Your task to perform on an android device: Open notification settings Image 0: 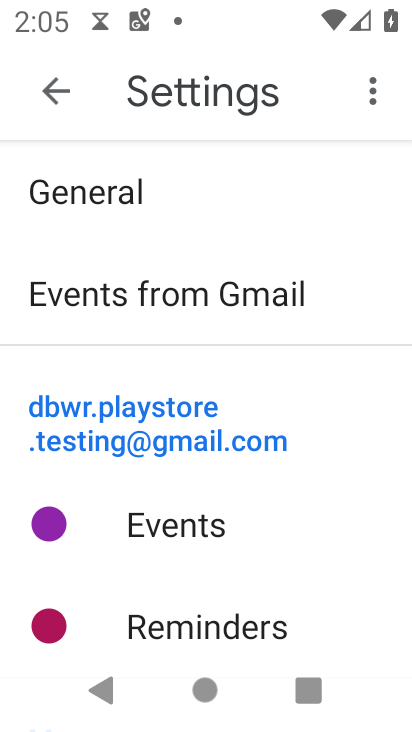
Step 0: press home button
Your task to perform on an android device: Open notification settings Image 1: 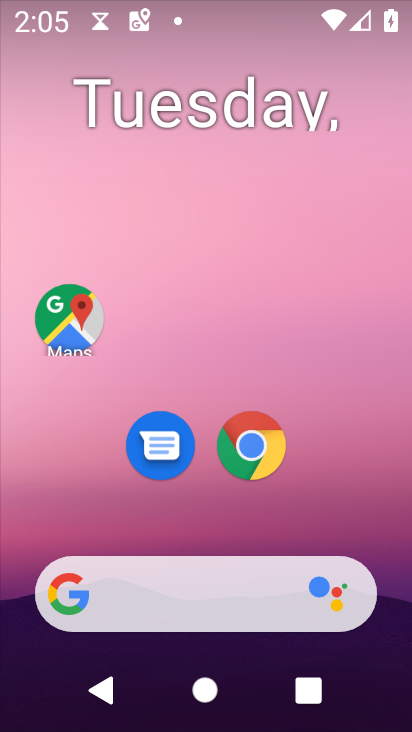
Step 1: drag from (242, 566) to (300, 138)
Your task to perform on an android device: Open notification settings Image 2: 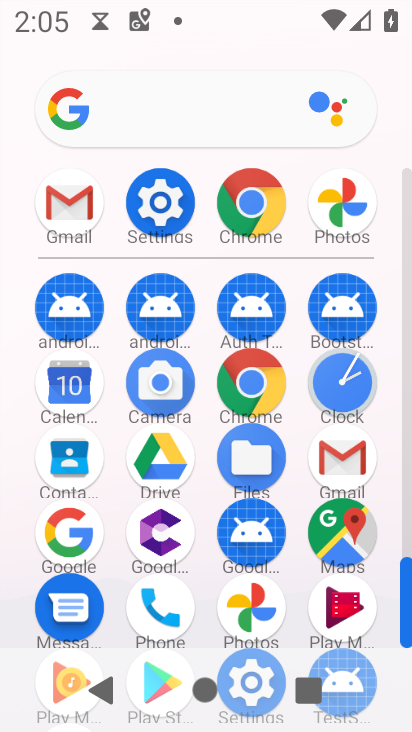
Step 2: click (163, 209)
Your task to perform on an android device: Open notification settings Image 3: 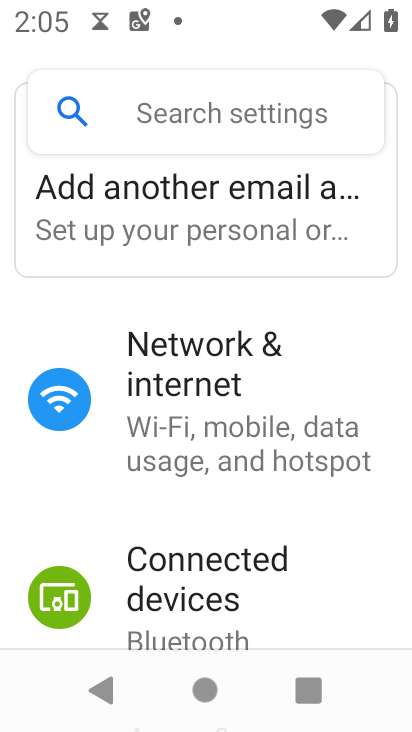
Step 3: drag from (263, 574) to (298, 320)
Your task to perform on an android device: Open notification settings Image 4: 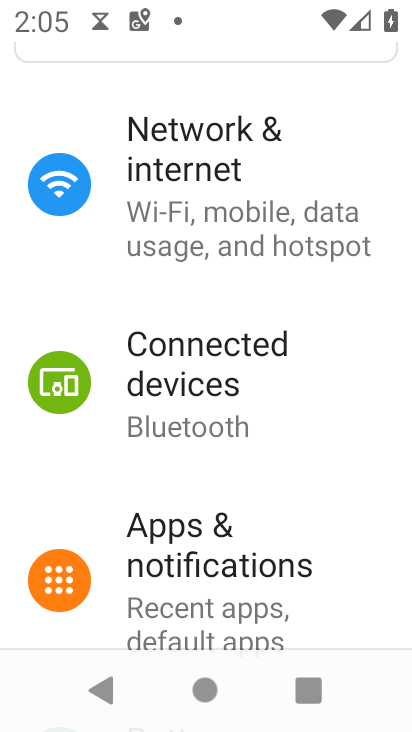
Step 4: click (232, 550)
Your task to perform on an android device: Open notification settings Image 5: 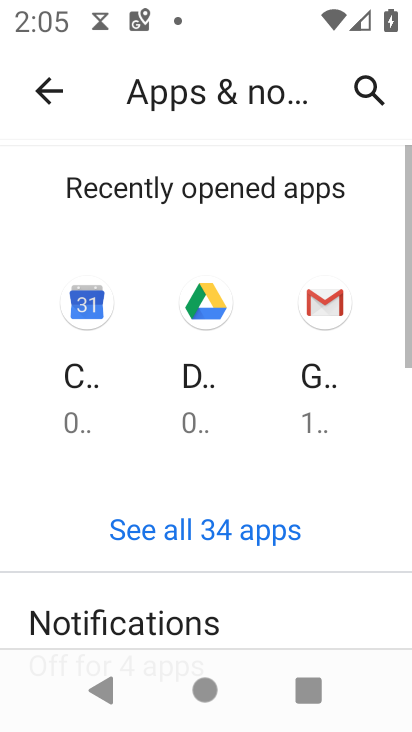
Step 5: drag from (318, 615) to (368, 180)
Your task to perform on an android device: Open notification settings Image 6: 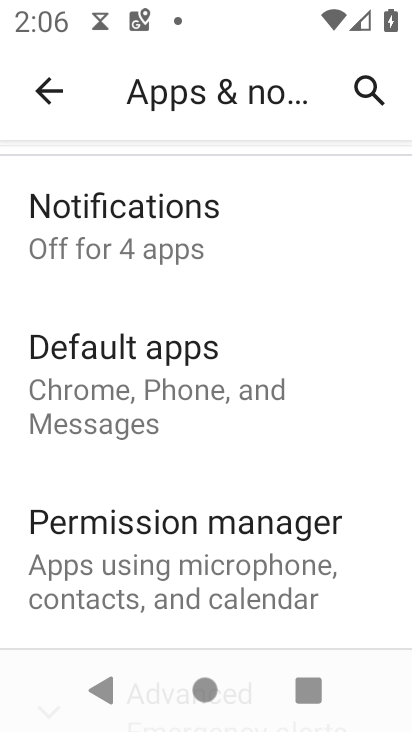
Step 6: click (135, 266)
Your task to perform on an android device: Open notification settings Image 7: 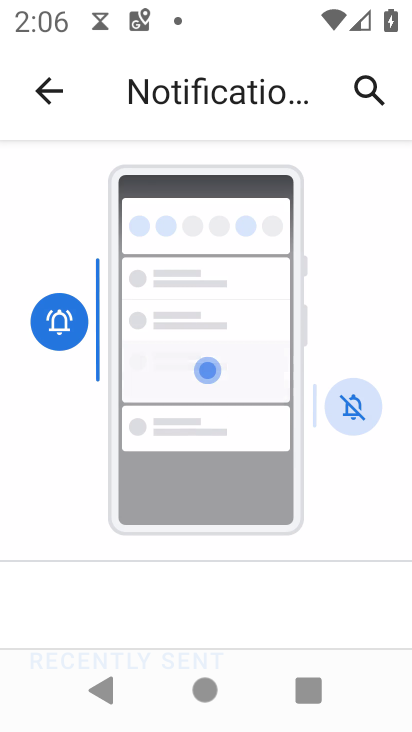
Step 7: task complete